Your task to perform on an android device: turn on data saver in the chrome app Image 0: 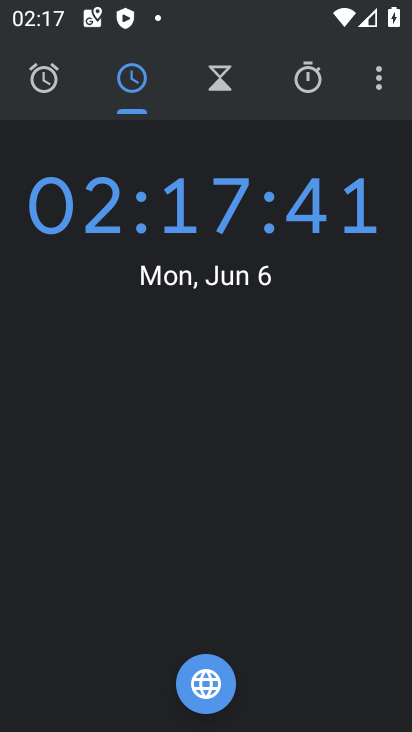
Step 0: press home button
Your task to perform on an android device: turn on data saver in the chrome app Image 1: 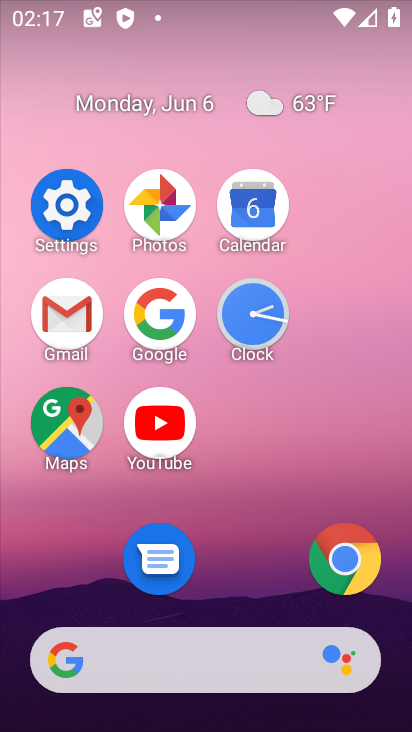
Step 1: click (365, 565)
Your task to perform on an android device: turn on data saver in the chrome app Image 2: 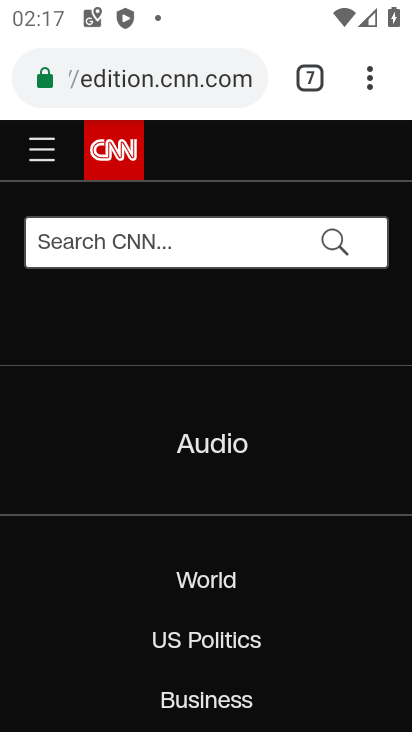
Step 2: click (382, 83)
Your task to perform on an android device: turn on data saver in the chrome app Image 3: 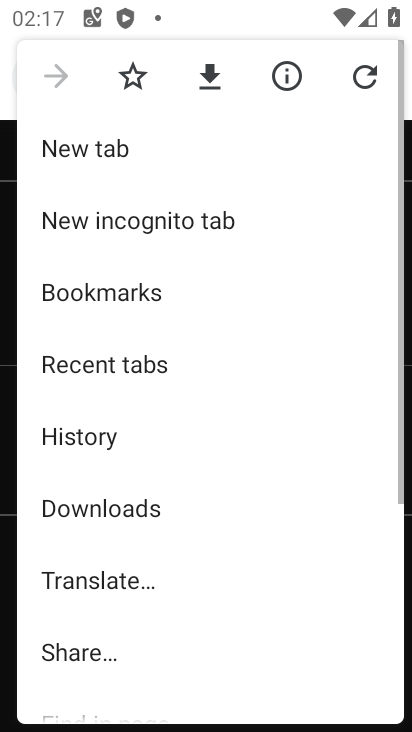
Step 3: drag from (219, 621) to (221, 157)
Your task to perform on an android device: turn on data saver in the chrome app Image 4: 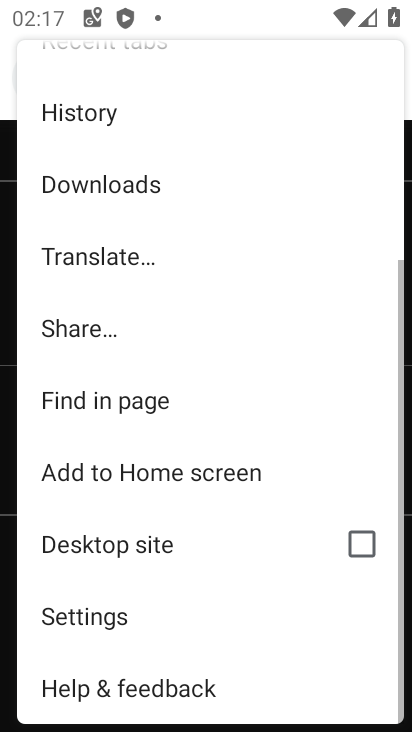
Step 4: click (121, 634)
Your task to perform on an android device: turn on data saver in the chrome app Image 5: 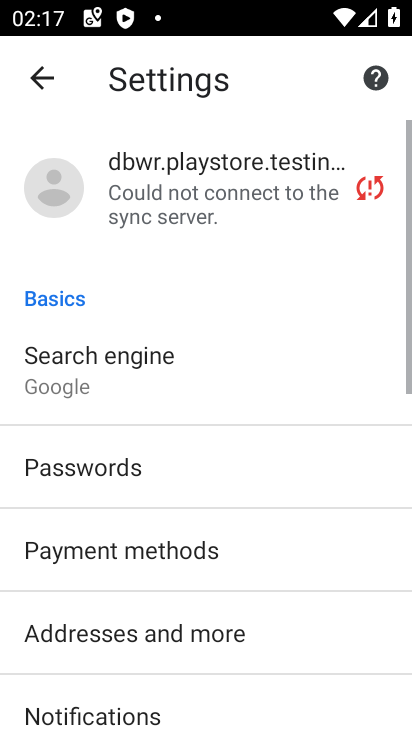
Step 5: drag from (175, 450) to (183, 217)
Your task to perform on an android device: turn on data saver in the chrome app Image 6: 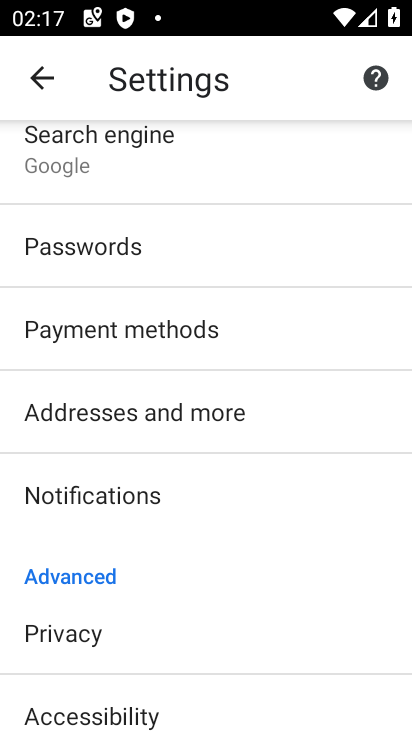
Step 6: drag from (149, 665) to (208, 256)
Your task to perform on an android device: turn on data saver in the chrome app Image 7: 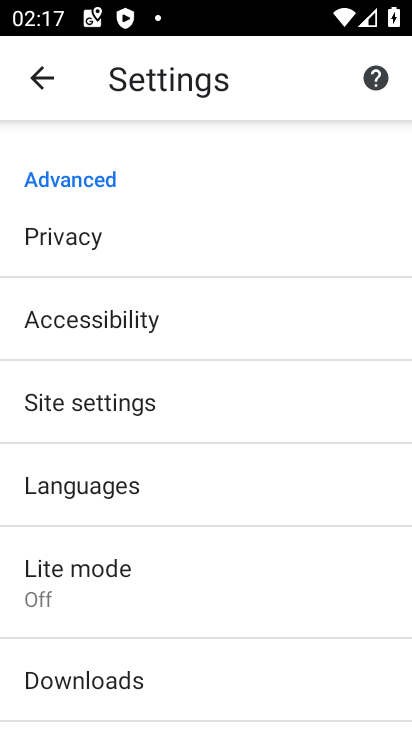
Step 7: click (186, 570)
Your task to perform on an android device: turn on data saver in the chrome app Image 8: 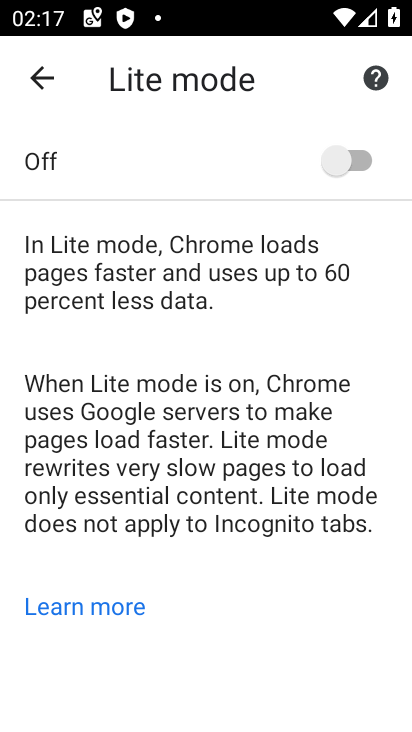
Step 8: click (353, 175)
Your task to perform on an android device: turn on data saver in the chrome app Image 9: 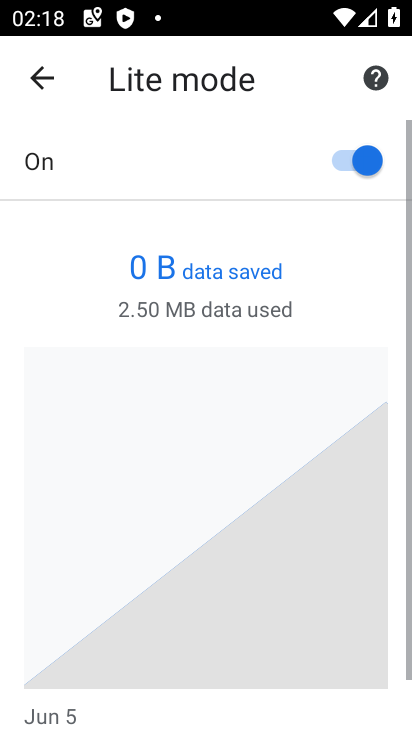
Step 9: task complete